Your task to perform on an android device: Set the phone to "Do not disturb". Image 0: 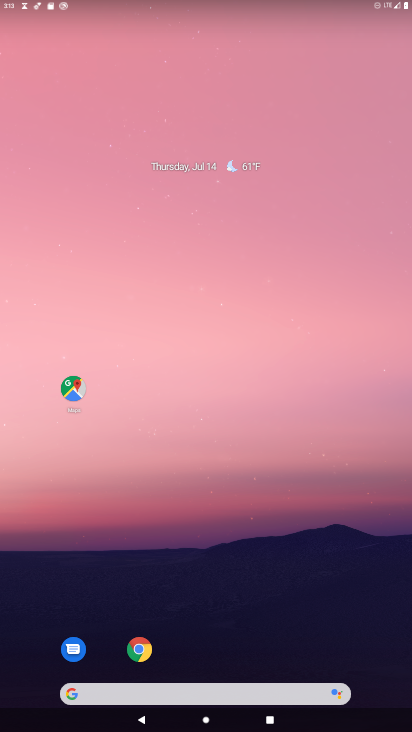
Step 0: drag from (267, 692) to (312, 15)
Your task to perform on an android device: Set the phone to "Do not disturb". Image 1: 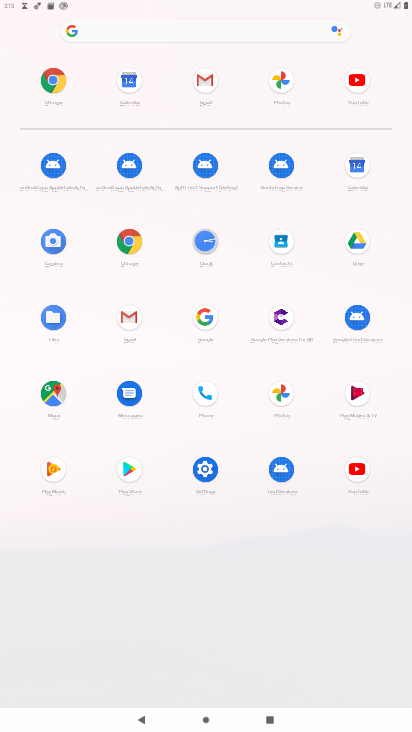
Step 1: click (198, 470)
Your task to perform on an android device: Set the phone to "Do not disturb". Image 2: 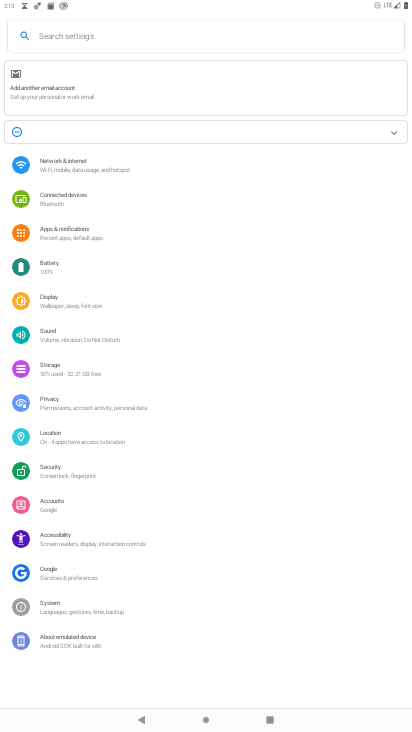
Step 2: click (70, 341)
Your task to perform on an android device: Set the phone to "Do not disturb". Image 3: 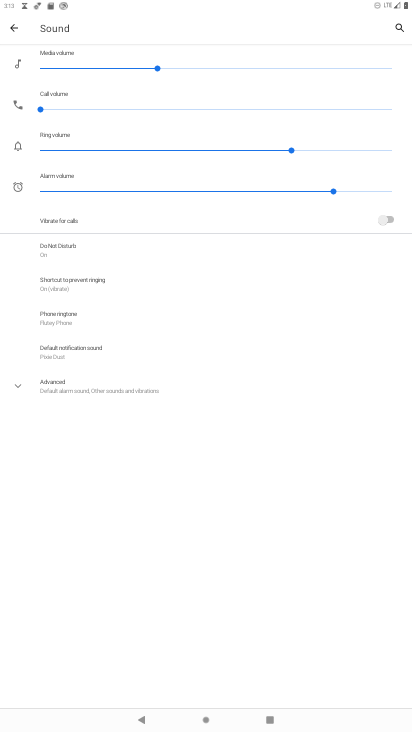
Step 3: click (69, 247)
Your task to perform on an android device: Set the phone to "Do not disturb". Image 4: 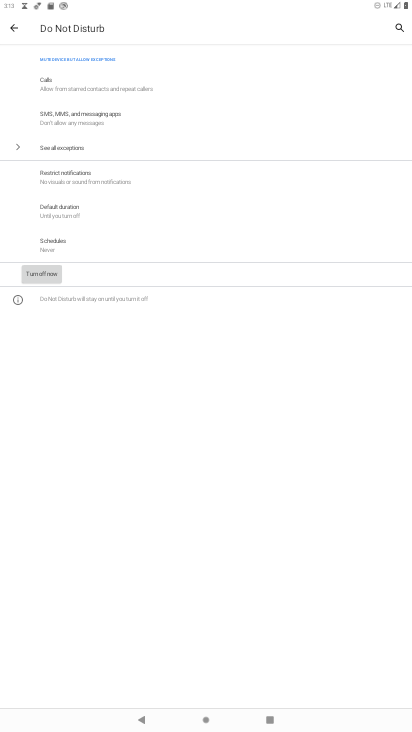
Step 4: task complete